Your task to perform on an android device: add a label to a message in the gmail app Image 0: 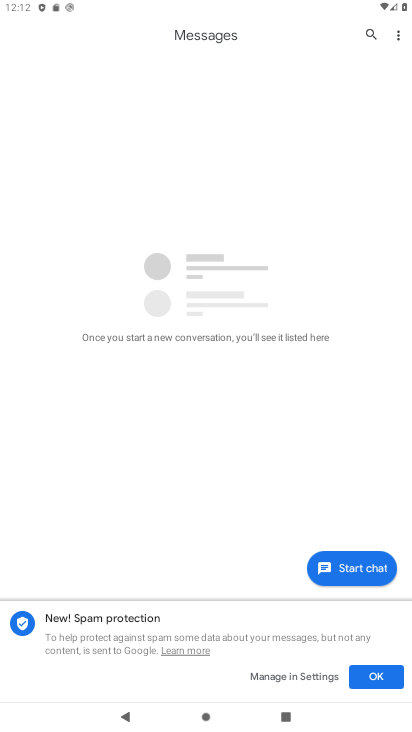
Step 0: press home button
Your task to perform on an android device: add a label to a message in the gmail app Image 1: 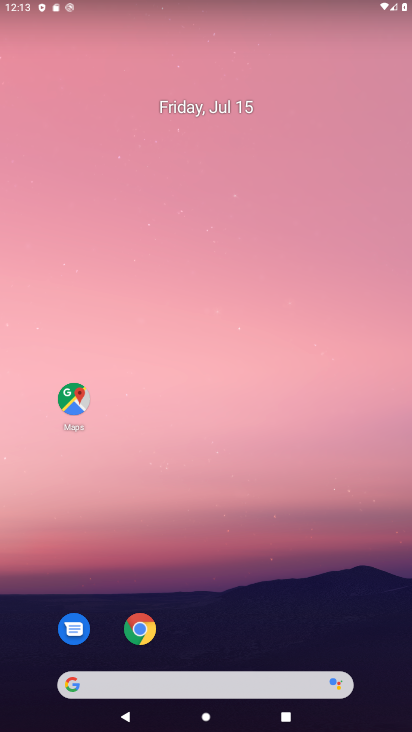
Step 1: drag from (348, 558) to (69, 7)
Your task to perform on an android device: add a label to a message in the gmail app Image 2: 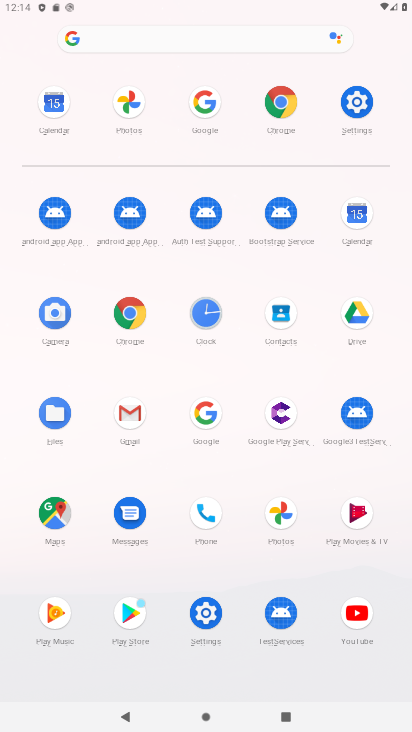
Step 2: click (131, 423)
Your task to perform on an android device: add a label to a message in the gmail app Image 3: 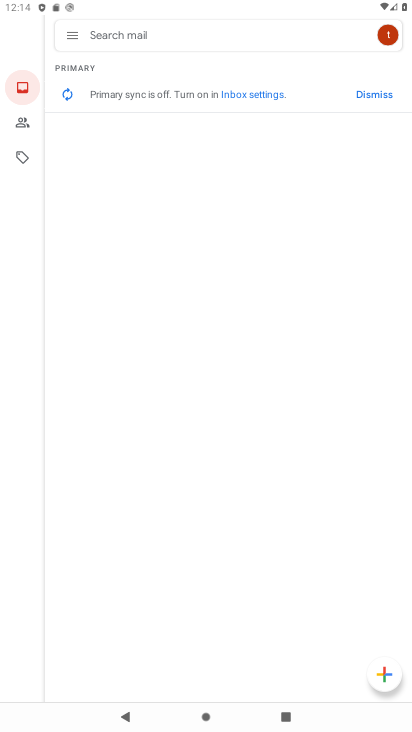
Step 3: click (72, 40)
Your task to perform on an android device: add a label to a message in the gmail app Image 4: 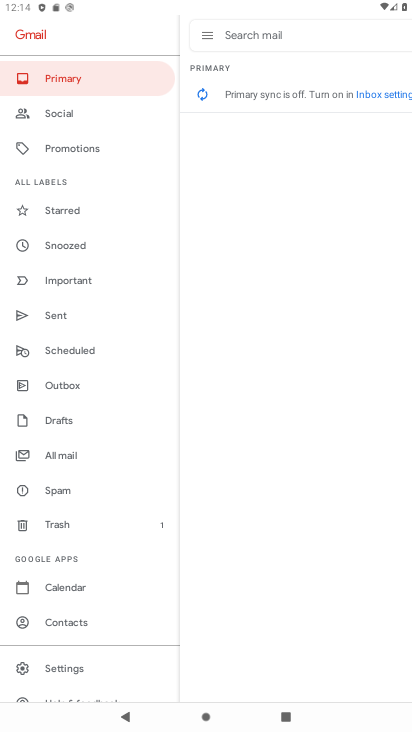
Step 4: click (70, 452)
Your task to perform on an android device: add a label to a message in the gmail app Image 5: 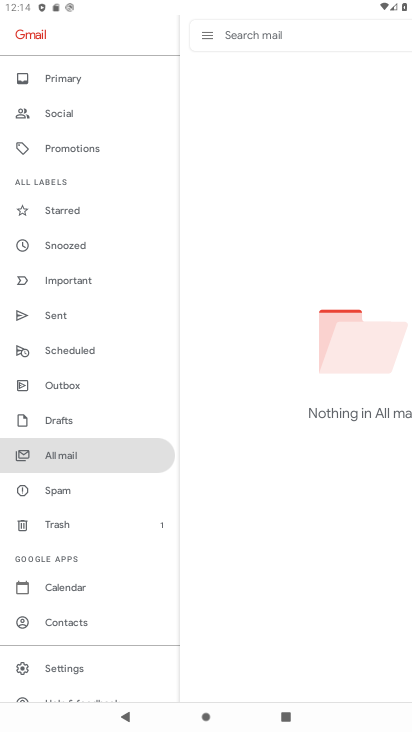
Step 5: task complete